Your task to perform on an android device: Search for flights from Boston to Zurich Image 0: 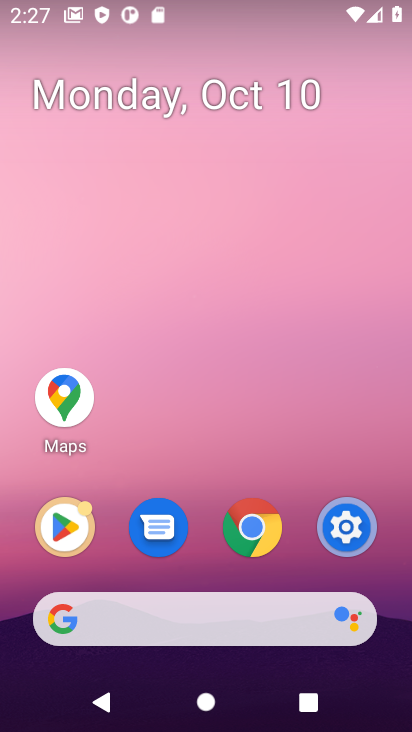
Step 0: press home button
Your task to perform on an android device: Search for flights from Boston to Zurich Image 1: 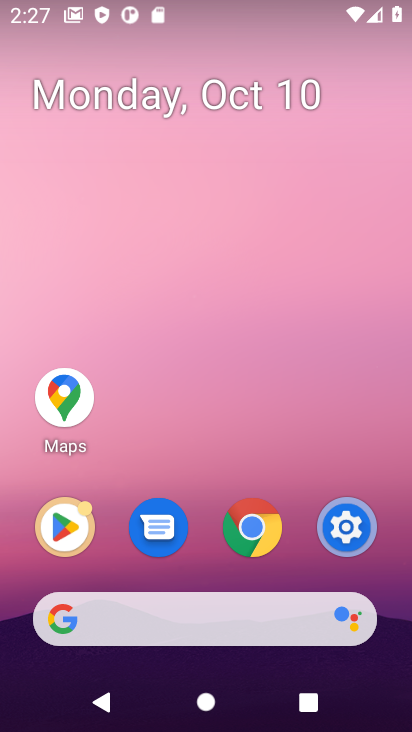
Step 1: click (217, 620)
Your task to perform on an android device: Search for flights from Boston to Zurich Image 2: 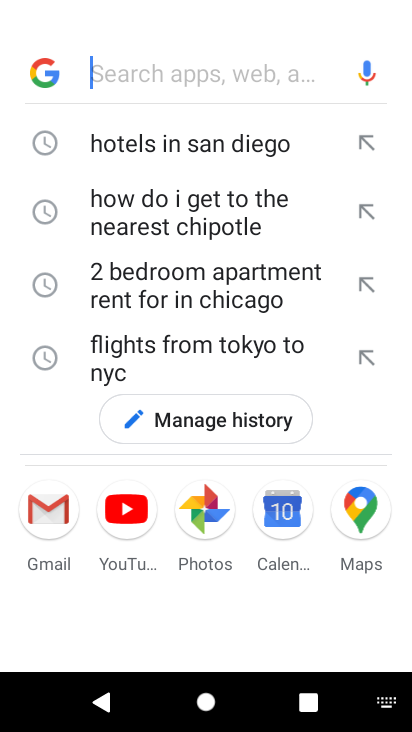
Step 2: type "flights from Boston to Zurich"
Your task to perform on an android device: Search for flights from Boston to Zurich Image 3: 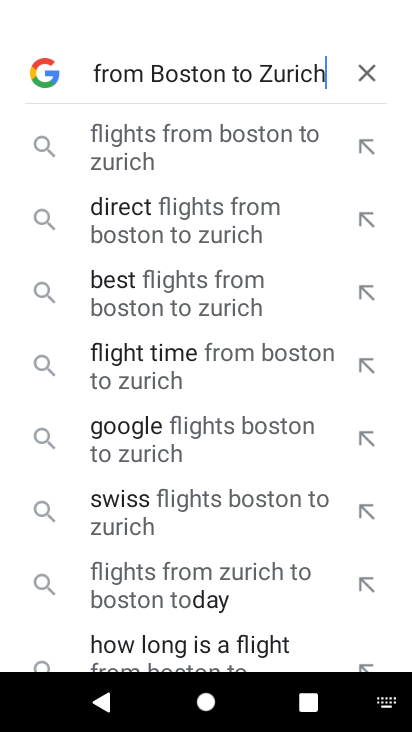
Step 3: press enter
Your task to perform on an android device: Search for flights from Boston to Zurich Image 4: 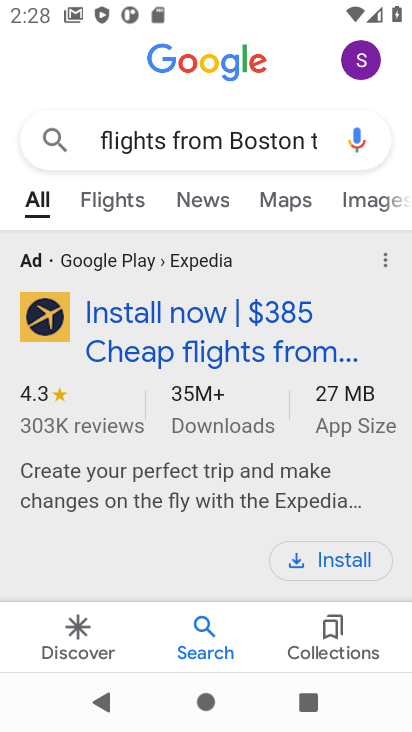
Step 4: drag from (180, 540) to (197, 311)
Your task to perform on an android device: Search for flights from Boston to Zurich Image 5: 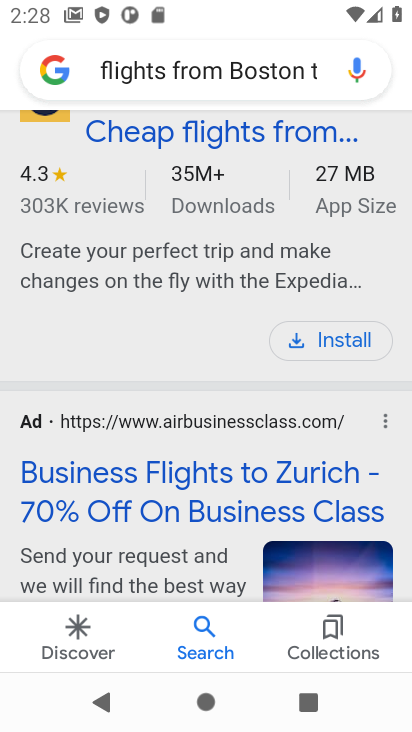
Step 5: drag from (191, 565) to (238, 371)
Your task to perform on an android device: Search for flights from Boston to Zurich Image 6: 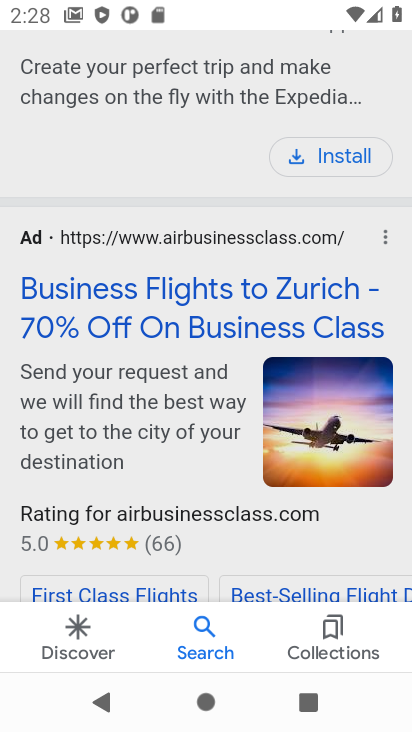
Step 6: drag from (174, 460) to (218, 197)
Your task to perform on an android device: Search for flights from Boston to Zurich Image 7: 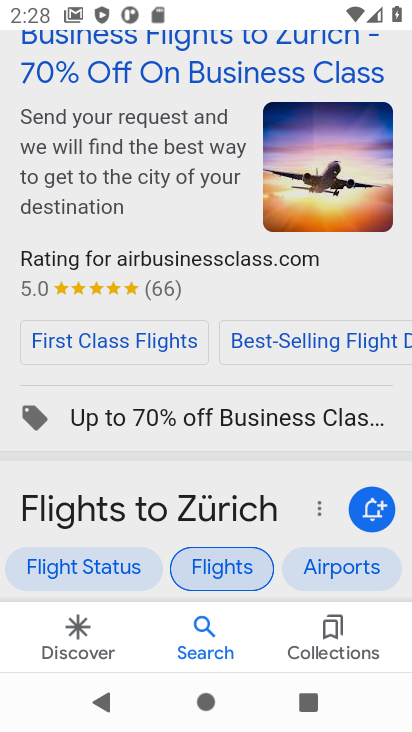
Step 7: drag from (156, 509) to (208, 207)
Your task to perform on an android device: Search for flights from Boston to Zurich Image 8: 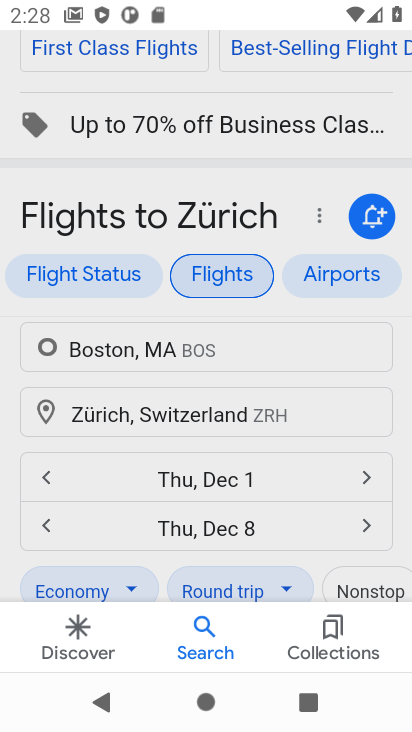
Step 8: drag from (145, 531) to (186, 265)
Your task to perform on an android device: Search for flights from Boston to Zurich Image 9: 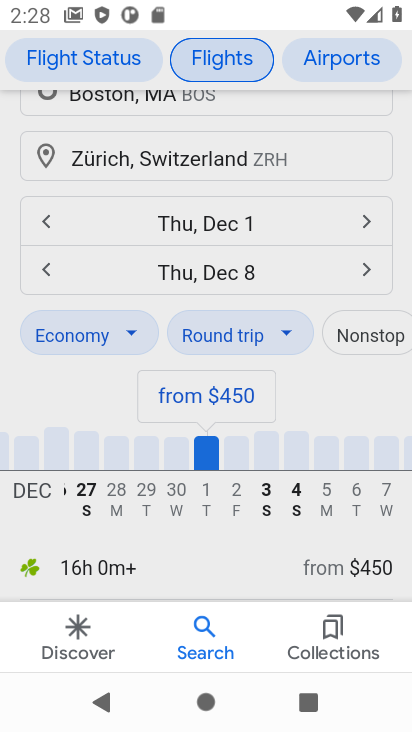
Step 9: drag from (152, 549) to (179, 343)
Your task to perform on an android device: Search for flights from Boston to Zurich Image 10: 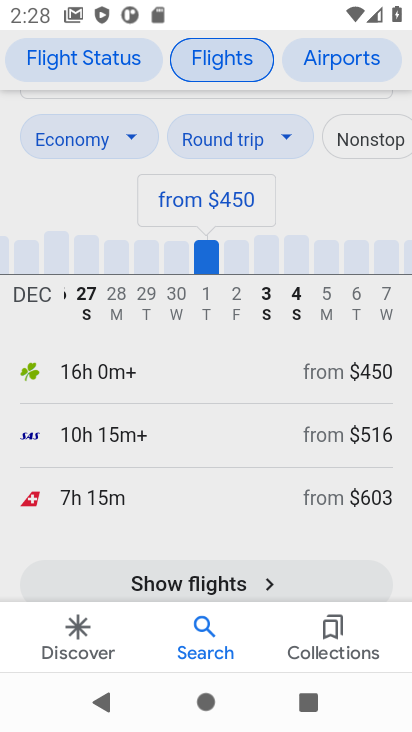
Step 10: click (192, 591)
Your task to perform on an android device: Search for flights from Boston to Zurich Image 11: 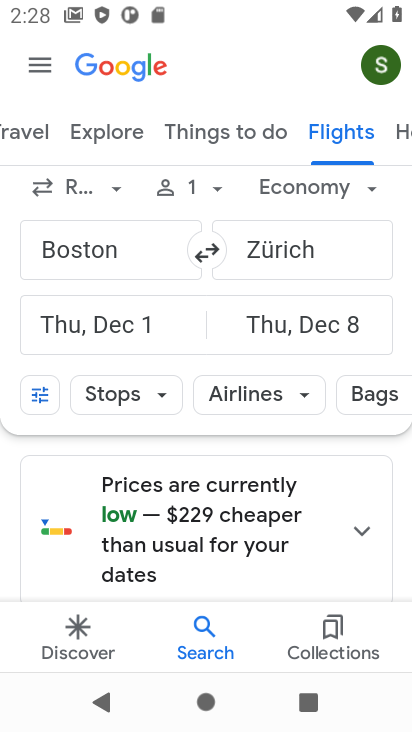
Step 11: task complete